Your task to perform on an android device: Add "razer huntsman" to the cart on newegg Image 0: 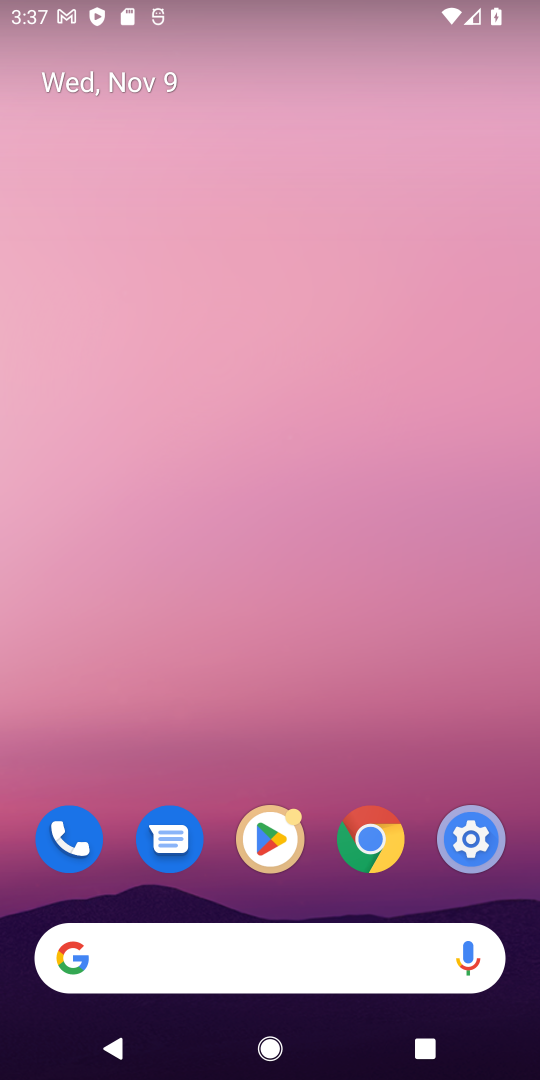
Step 0: click (305, 941)
Your task to perform on an android device: Add "razer huntsman" to the cart on newegg Image 1: 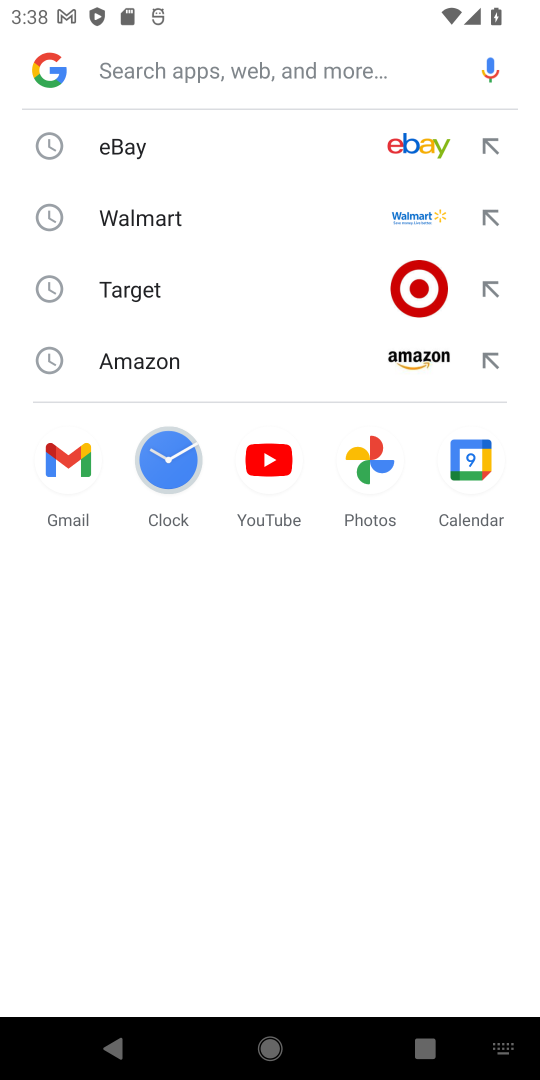
Step 1: type "razer huntsman"
Your task to perform on an android device: Add "razer huntsman" to the cart on newegg Image 2: 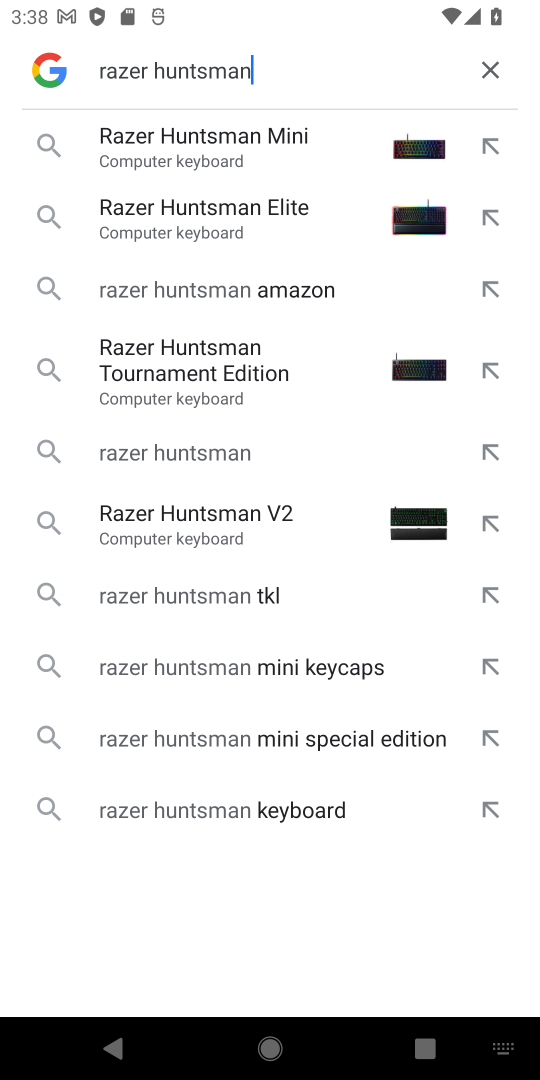
Step 2: click (149, 161)
Your task to perform on an android device: Add "razer huntsman" to the cart on newegg Image 3: 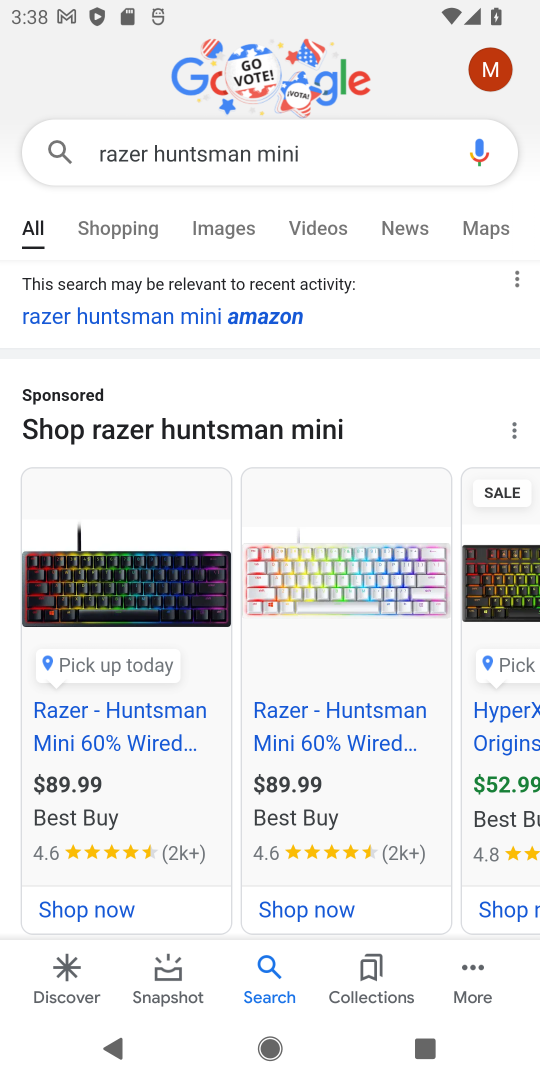
Step 3: click (503, 735)
Your task to perform on an android device: Add "razer huntsman" to the cart on newegg Image 4: 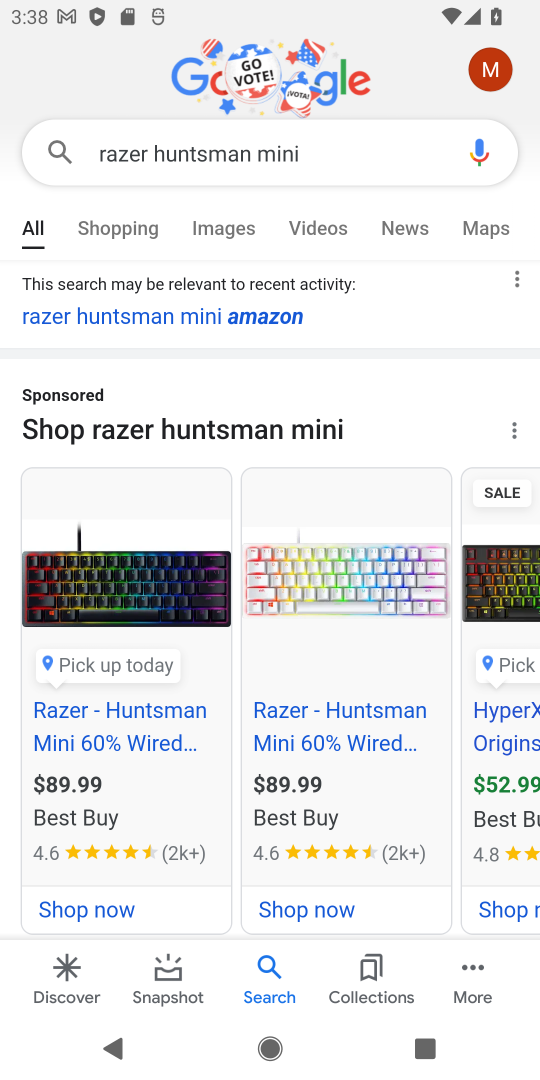
Step 4: task complete